Your task to perform on an android device: What's on my calendar tomorrow? Image 0: 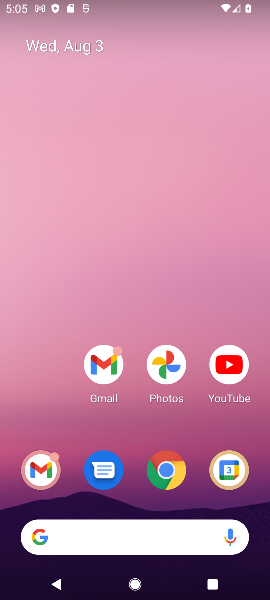
Step 0: drag from (48, 420) to (118, 17)
Your task to perform on an android device: What's on my calendar tomorrow? Image 1: 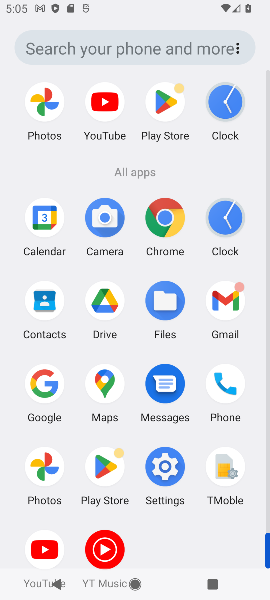
Step 1: click (49, 218)
Your task to perform on an android device: What's on my calendar tomorrow? Image 2: 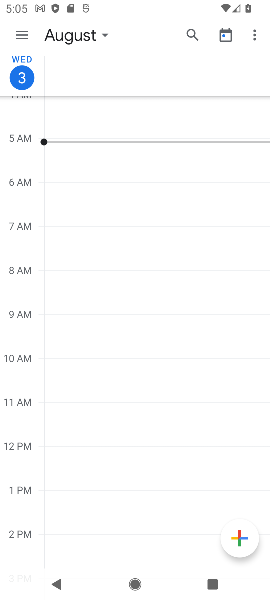
Step 2: click (70, 34)
Your task to perform on an android device: What's on my calendar tomorrow? Image 3: 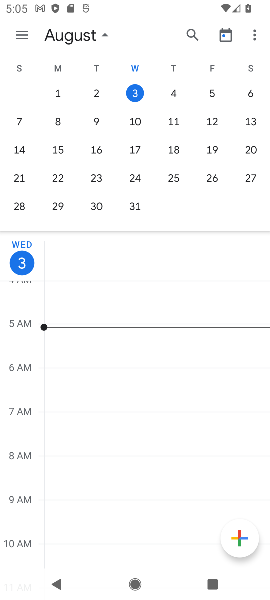
Step 3: click (165, 87)
Your task to perform on an android device: What's on my calendar tomorrow? Image 4: 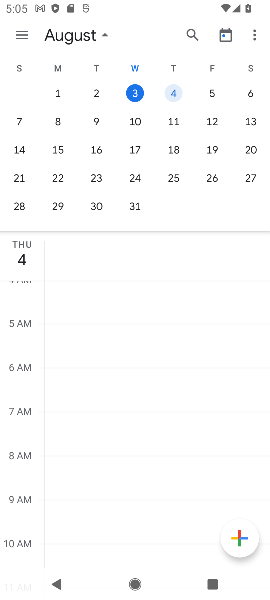
Step 4: task complete